Your task to perform on an android device: add a label to a message in the gmail app Image 0: 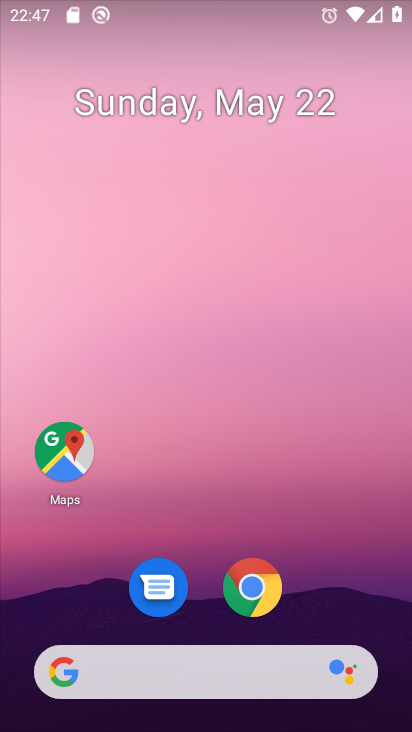
Step 0: drag from (194, 511) to (216, 44)
Your task to perform on an android device: add a label to a message in the gmail app Image 1: 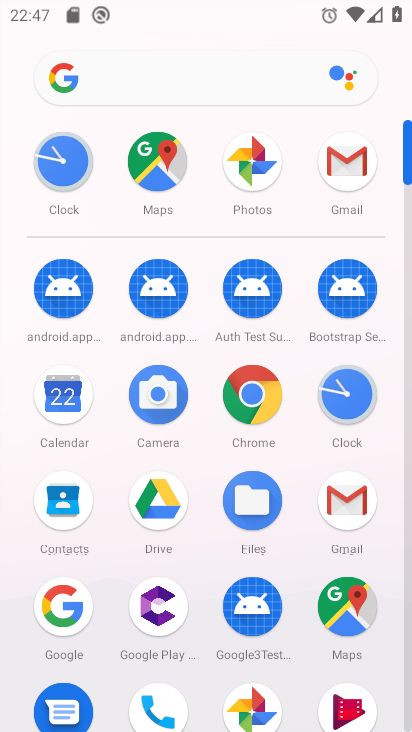
Step 1: click (337, 160)
Your task to perform on an android device: add a label to a message in the gmail app Image 2: 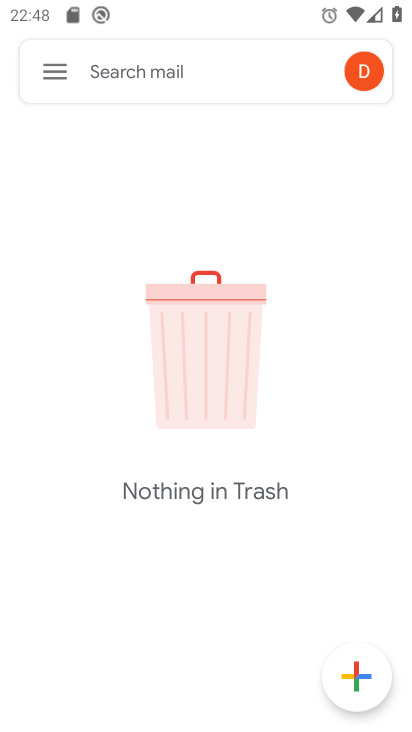
Step 2: task complete